Your task to perform on an android device: Go to ESPN.com Image 0: 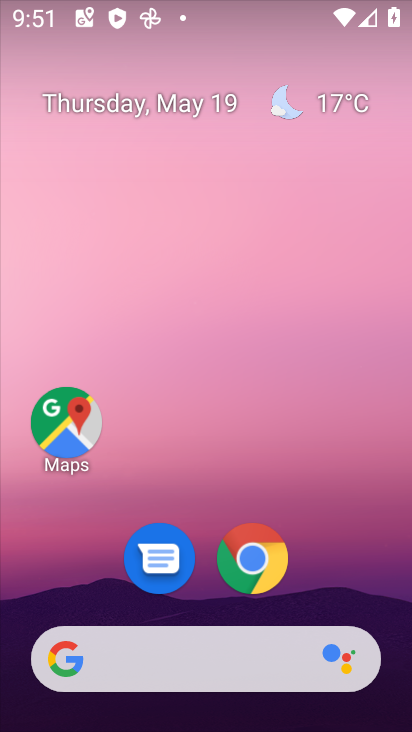
Step 0: click (239, 554)
Your task to perform on an android device: Go to ESPN.com Image 1: 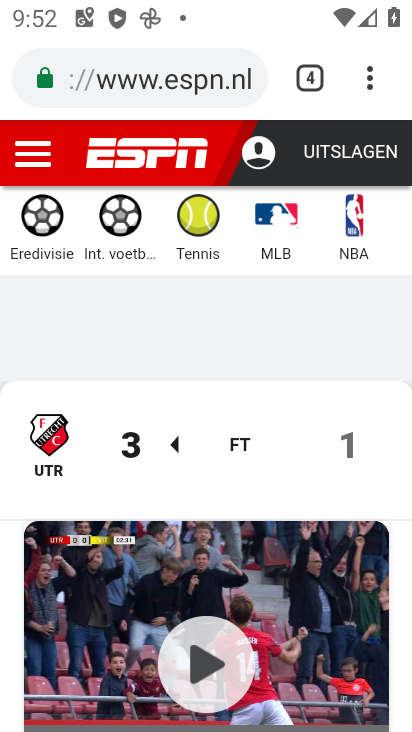
Step 1: task complete